Your task to perform on an android device: turn on javascript in the chrome app Image 0: 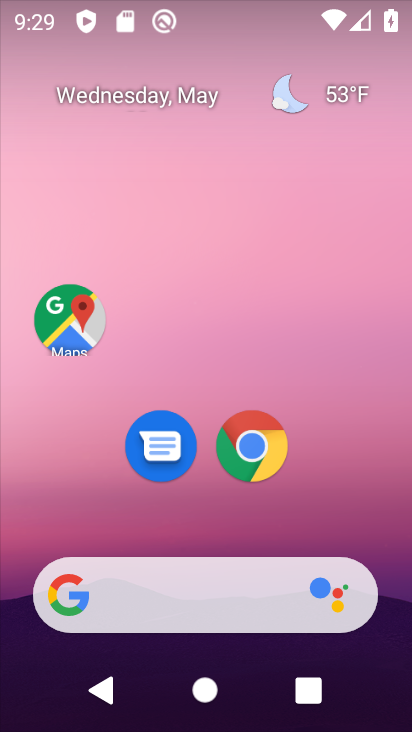
Step 0: click (278, 443)
Your task to perform on an android device: turn on javascript in the chrome app Image 1: 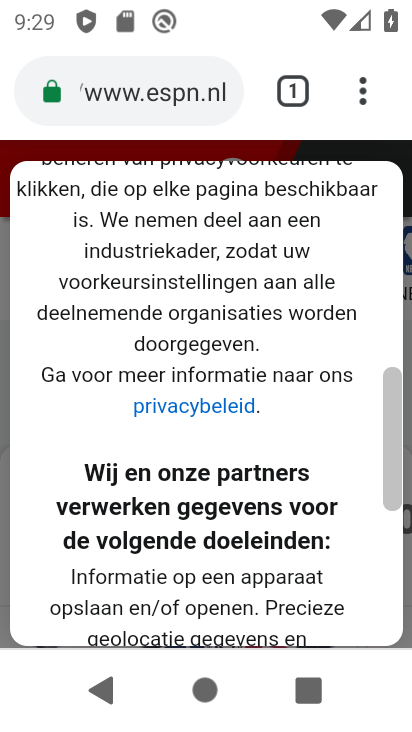
Step 1: click (372, 83)
Your task to perform on an android device: turn on javascript in the chrome app Image 2: 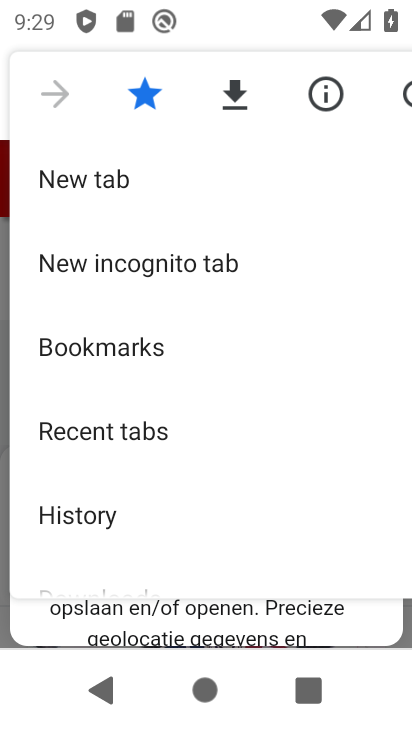
Step 2: drag from (276, 490) to (203, 291)
Your task to perform on an android device: turn on javascript in the chrome app Image 3: 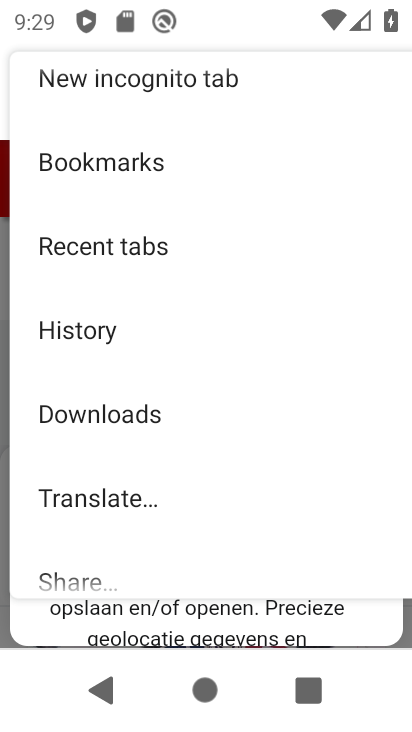
Step 3: drag from (300, 526) to (252, 193)
Your task to perform on an android device: turn on javascript in the chrome app Image 4: 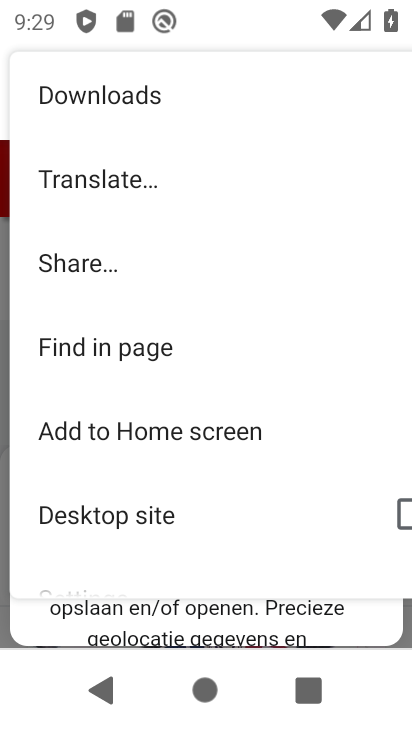
Step 4: drag from (237, 515) to (206, 286)
Your task to perform on an android device: turn on javascript in the chrome app Image 5: 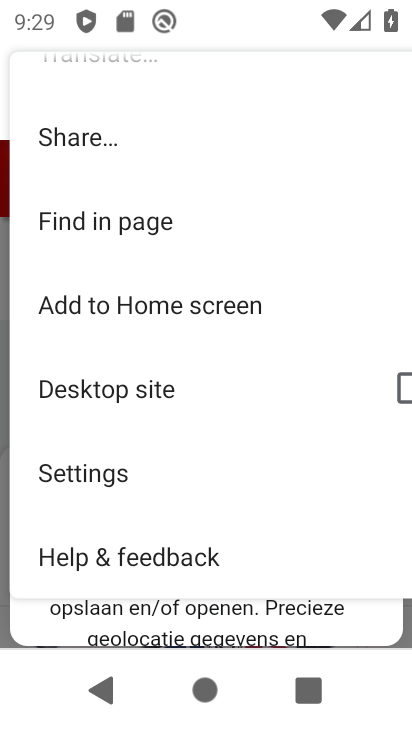
Step 5: click (128, 462)
Your task to perform on an android device: turn on javascript in the chrome app Image 6: 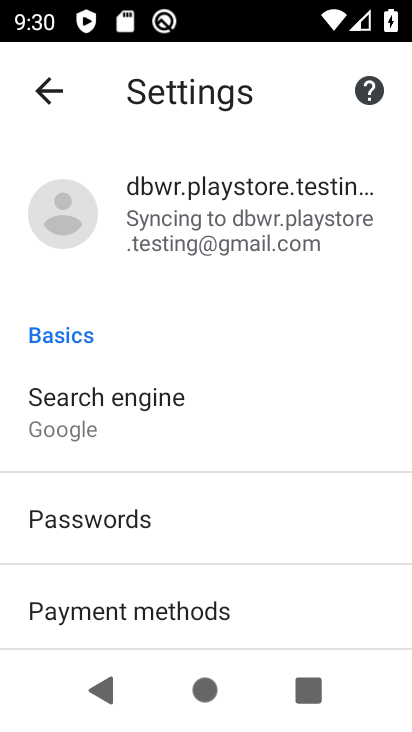
Step 6: drag from (238, 549) to (191, 257)
Your task to perform on an android device: turn on javascript in the chrome app Image 7: 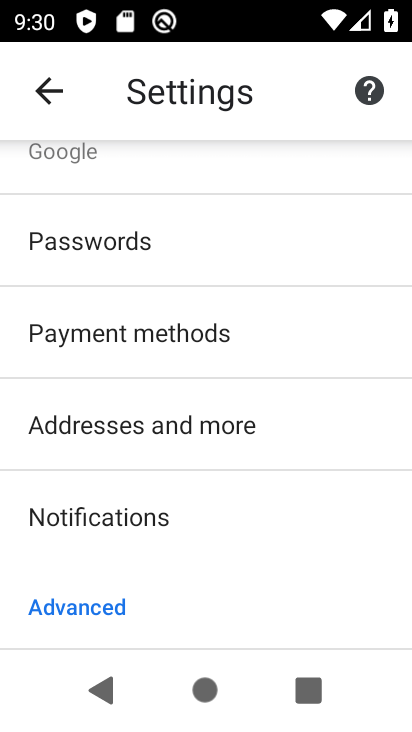
Step 7: drag from (259, 484) to (215, 260)
Your task to perform on an android device: turn on javascript in the chrome app Image 8: 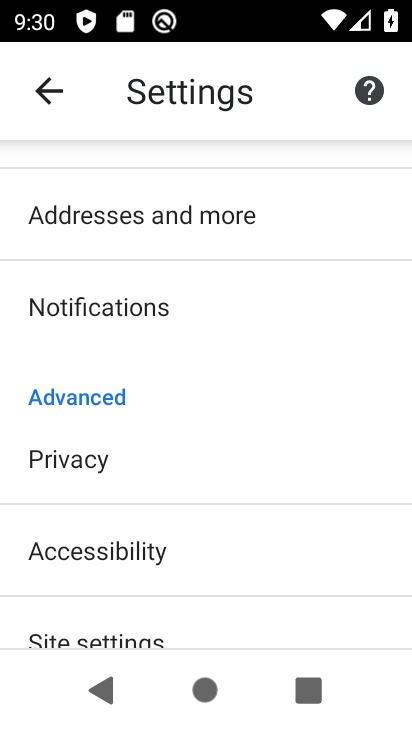
Step 8: click (181, 634)
Your task to perform on an android device: turn on javascript in the chrome app Image 9: 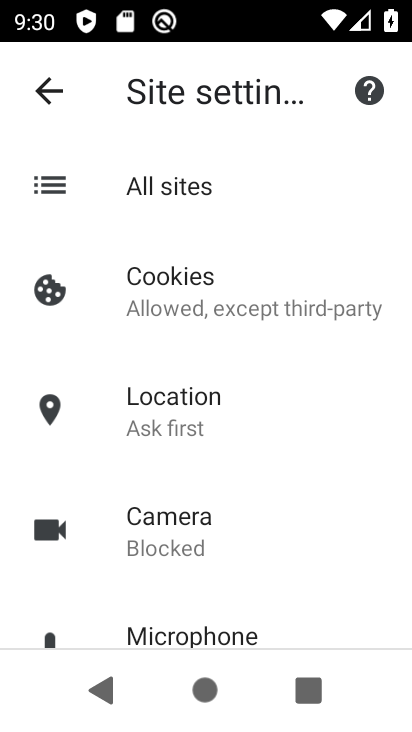
Step 9: drag from (268, 597) to (226, 348)
Your task to perform on an android device: turn on javascript in the chrome app Image 10: 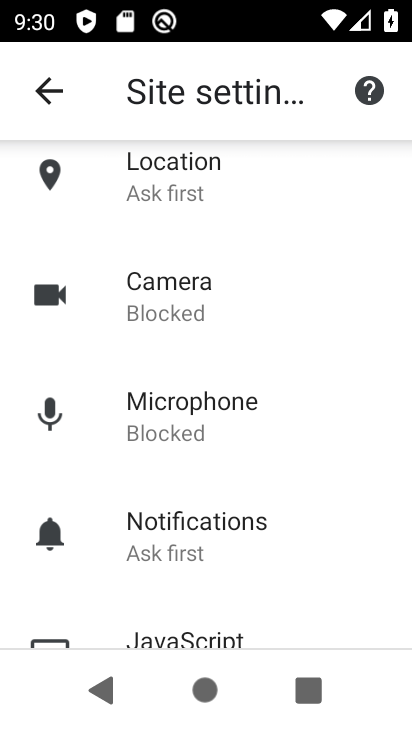
Step 10: click (237, 635)
Your task to perform on an android device: turn on javascript in the chrome app Image 11: 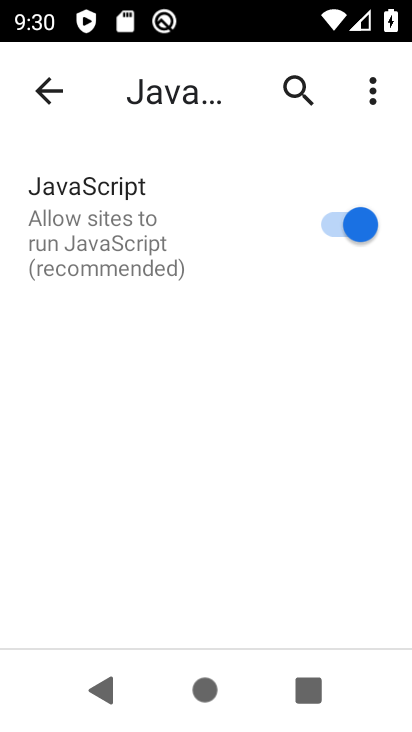
Step 11: task complete